Your task to perform on an android device: stop showing notifications on the lock screen Image 0: 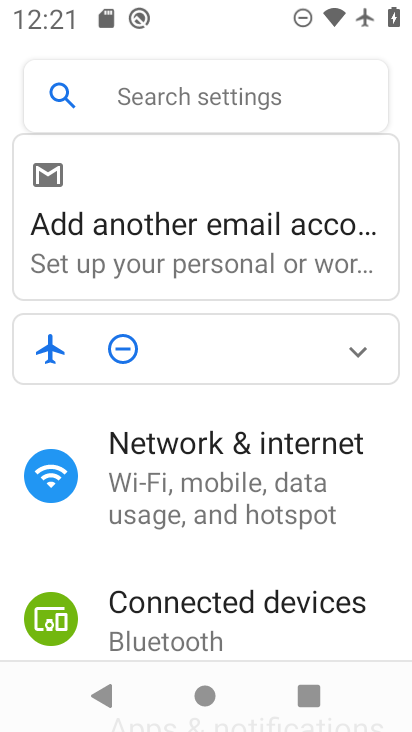
Step 0: drag from (286, 539) to (298, 231)
Your task to perform on an android device: stop showing notifications on the lock screen Image 1: 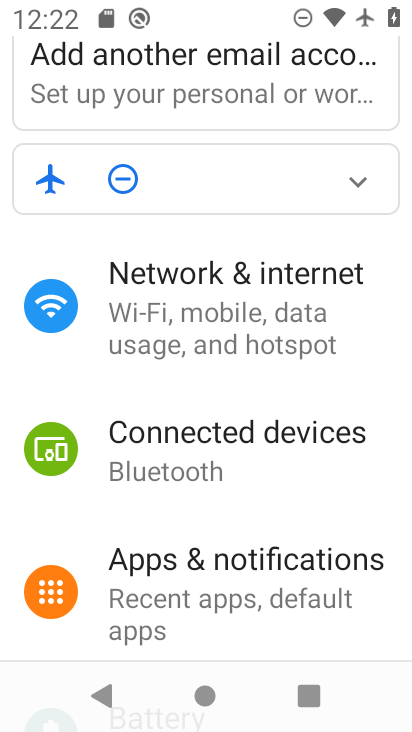
Step 1: click (224, 573)
Your task to perform on an android device: stop showing notifications on the lock screen Image 2: 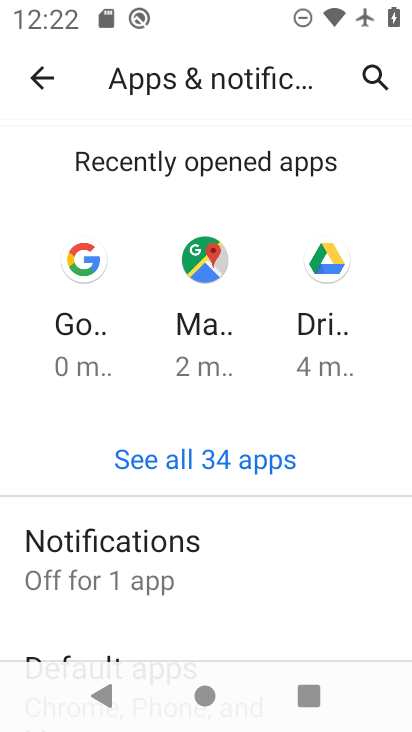
Step 2: drag from (301, 548) to (283, 204)
Your task to perform on an android device: stop showing notifications on the lock screen Image 3: 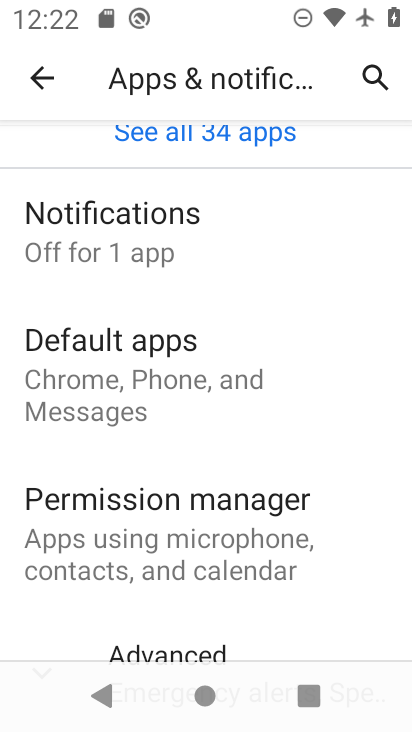
Step 3: drag from (272, 578) to (280, 169)
Your task to perform on an android device: stop showing notifications on the lock screen Image 4: 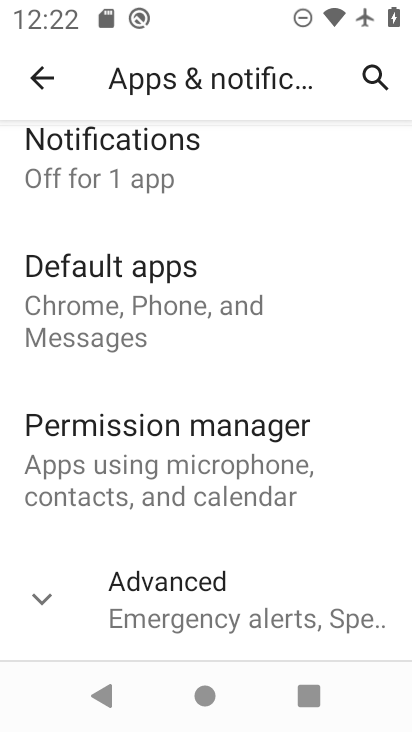
Step 4: click (43, 593)
Your task to perform on an android device: stop showing notifications on the lock screen Image 5: 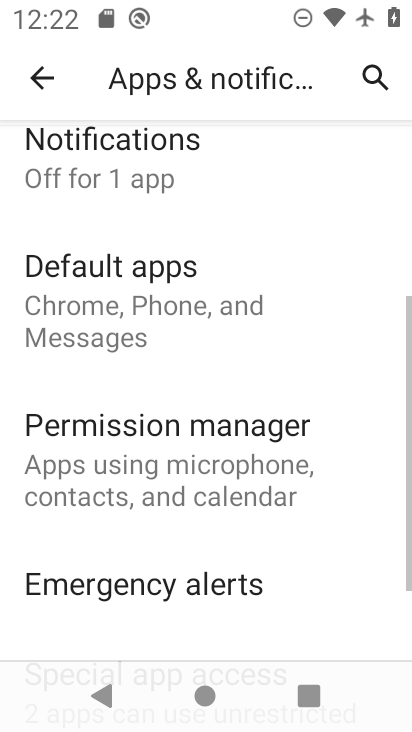
Step 5: drag from (298, 549) to (287, 279)
Your task to perform on an android device: stop showing notifications on the lock screen Image 6: 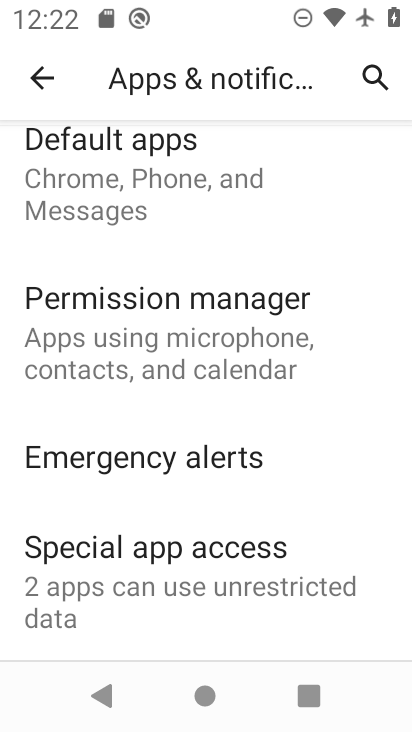
Step 6: drag from (306, 197) to (301, 599)
Your task to perform on an android device: stop showing notifications on the lock screen Image 7: 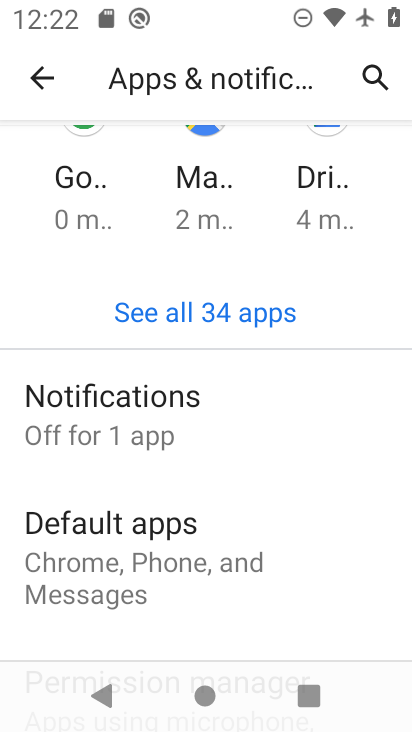
Step 7: click (168, 392)
Your task to perform on an android device: stop showing notifications on the lock screen Image 8: 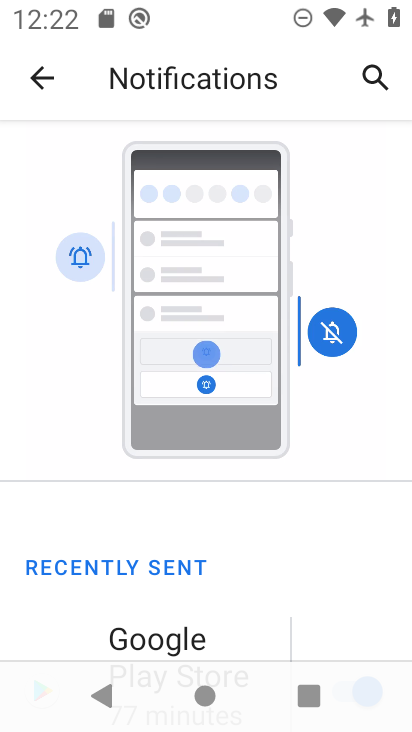
Step 8: drag from (205, 535) to (254, 170)
Your task to perform on an android device: stop showing notifications on the lock screen Image 9: 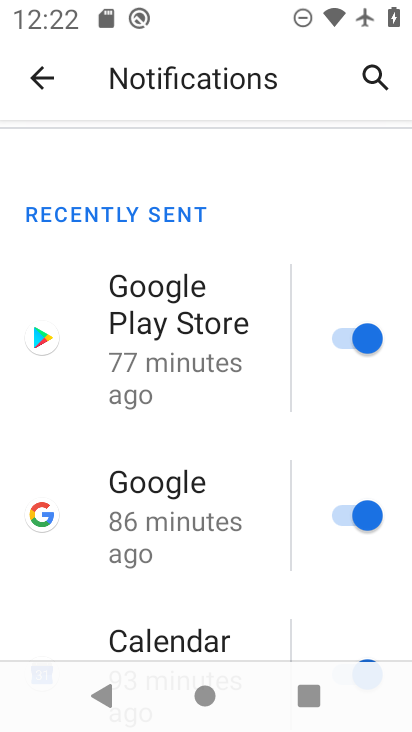
Step 9: drag from (226, 568) to (237, 102)
Your task to perform on an android device: stop showing notifications on the lock screen Image 10: 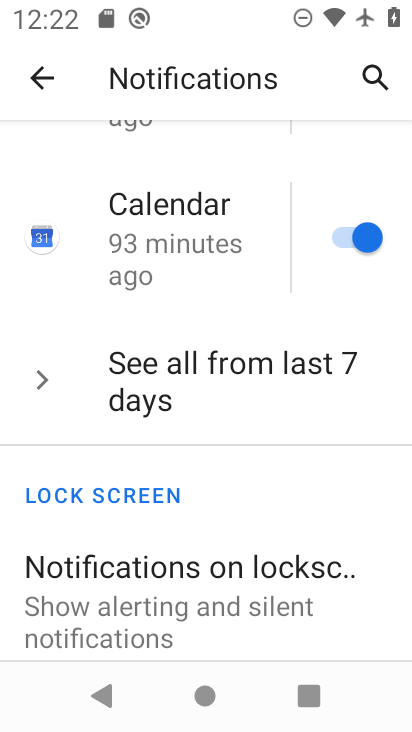
Step 10: drag from (239, 532) to (251, 128)
Your task to perform on an android device: stop showing notifications on the lock screen Image 11: 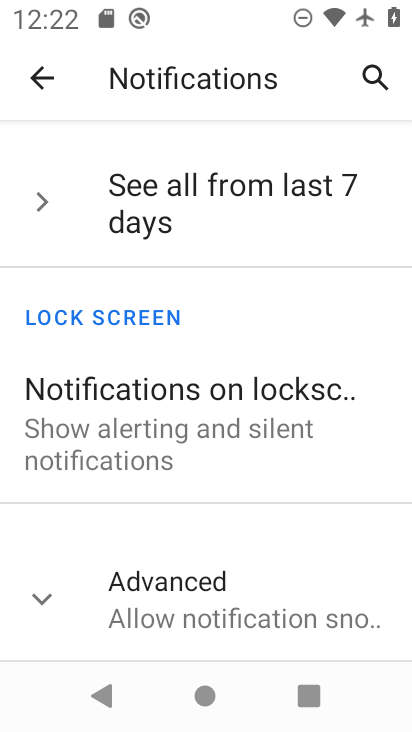
Step 11: click (28, 583)
Your task to perform on an android device: stop showing notifications on the lock screen Image 12: 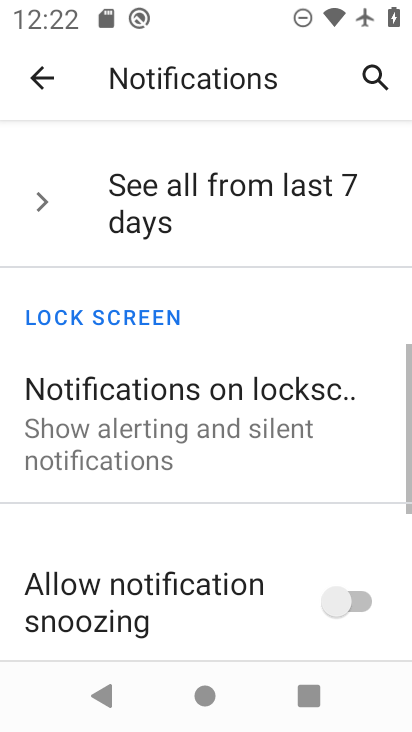
Step 12: click (236, 430)
Your task to perform on an android device: stop showing notifications on the lock screen Image 13: 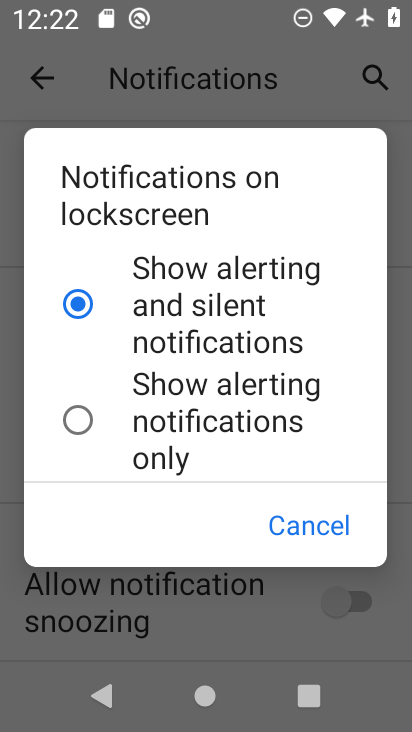
Step 13: drag from (179, 410) to (225, 122)
Your task to perform on an android device: stop showing notifications on the lock screen Image 14: 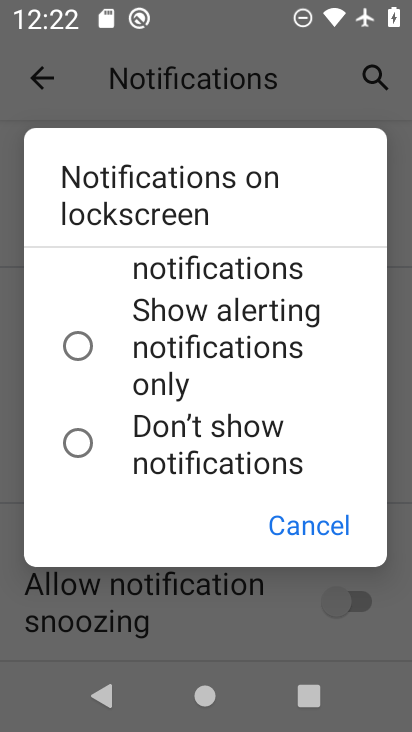
Step 14: click (124, 438)
Your task to perform on an android device: stop showing notifications on the lock screen Image 15: 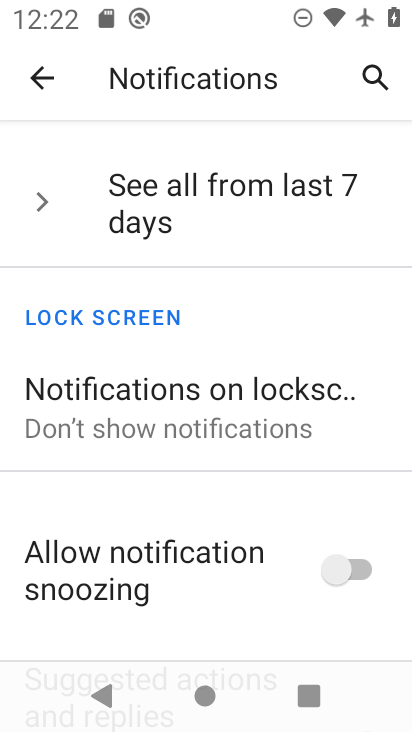
Step 15: task complete